Your task to perform on an android device: Open settings on Google Maps Image 0: 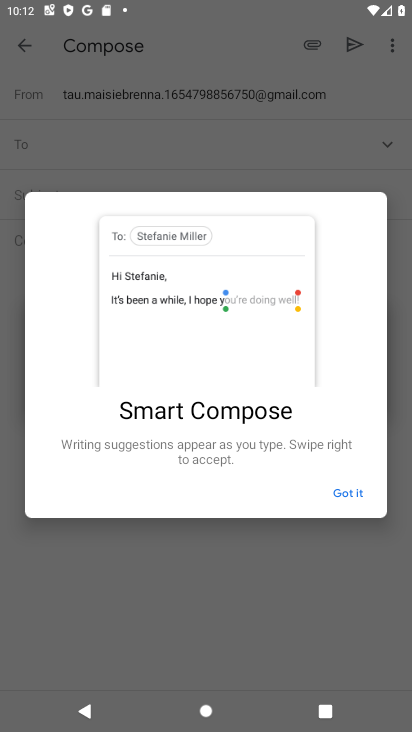
Step 0: press home button
Your task to perform on an android device: Open settings on Google Maps Image 1: 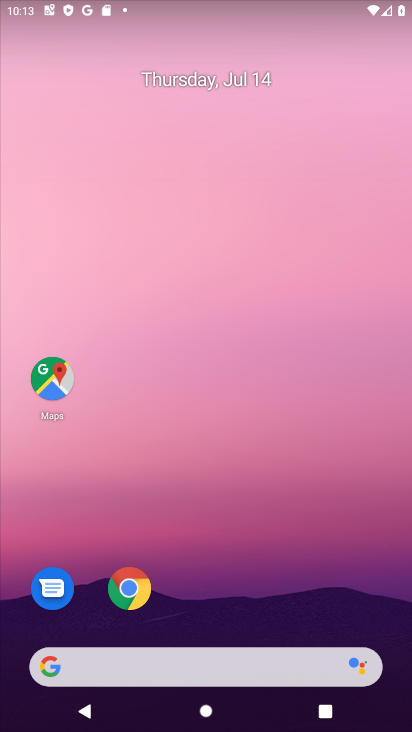
Step 1: click (53, 385)
Your task to perform on an android device: Open settings on Google Maps Image 2: 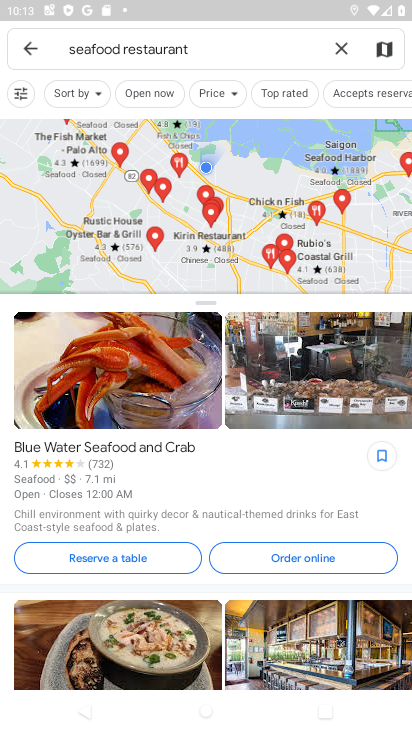
Step 2: click (28, 49)
Your task to perform on an android device: Open settings on Google Maps Image 3: 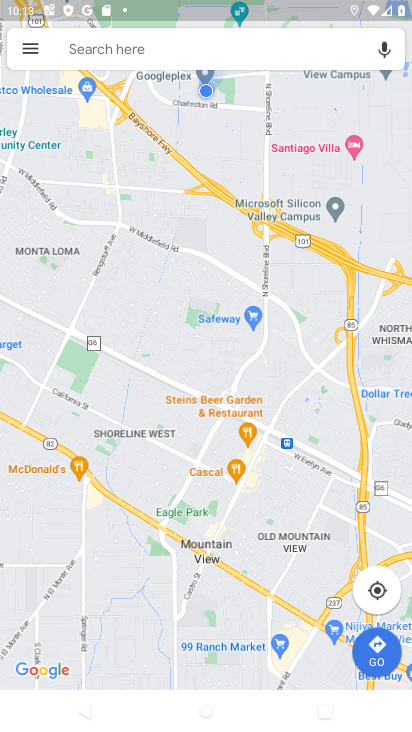
Step 3: task complete